Your task to perform on an android device: What's the weather? Image 0: 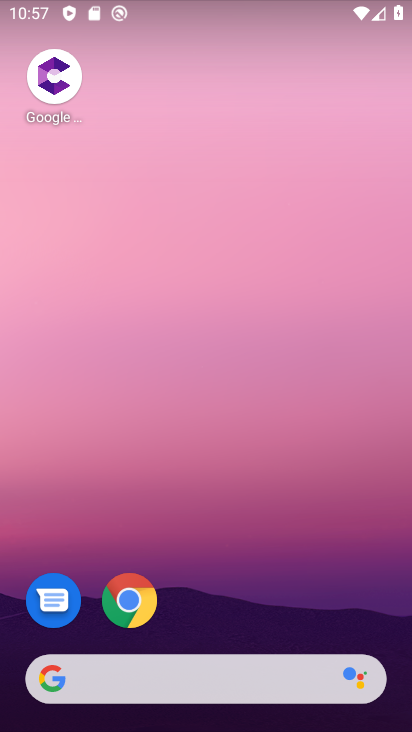
Step 0: click (274, 682)
Your task to perform on an android device: What's the weather? Image 1: 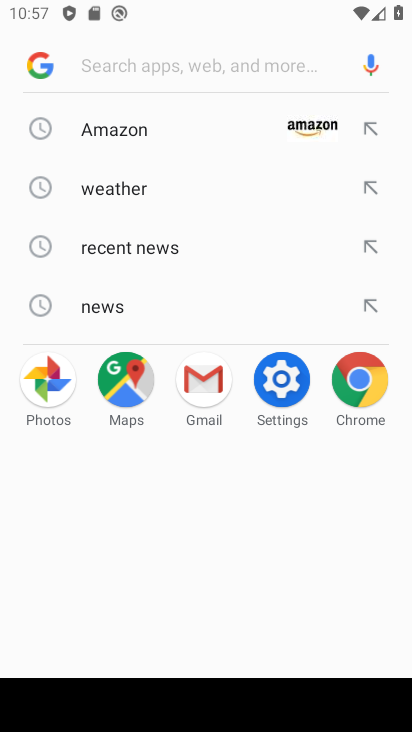
Step 1: click (151, 179)
Your task to perform on an android device: What's the weather? Image 2: 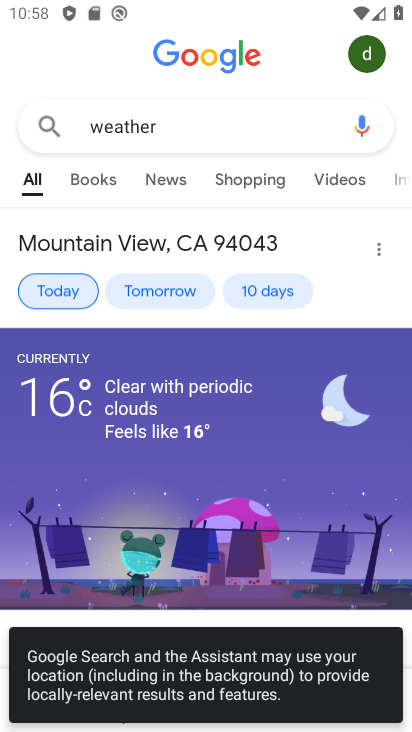
Step 2: task complete